Your task to perform on an android device: Open notification settings Image 0: 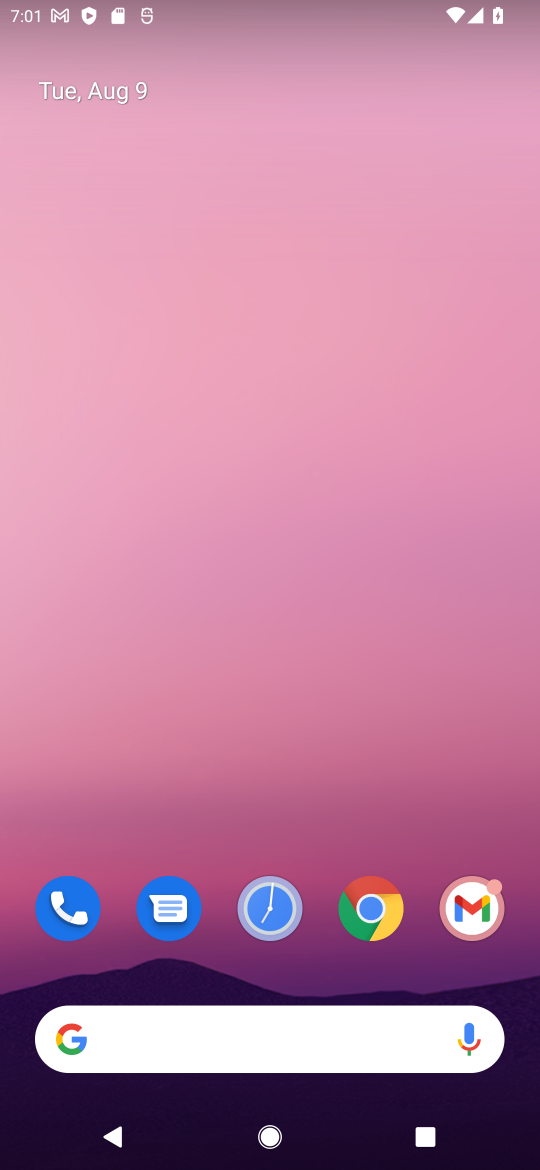
Step 0: drag from (317, 997) to (284, 160)
Your task to perform on an android device: Open notification settings Image 1: 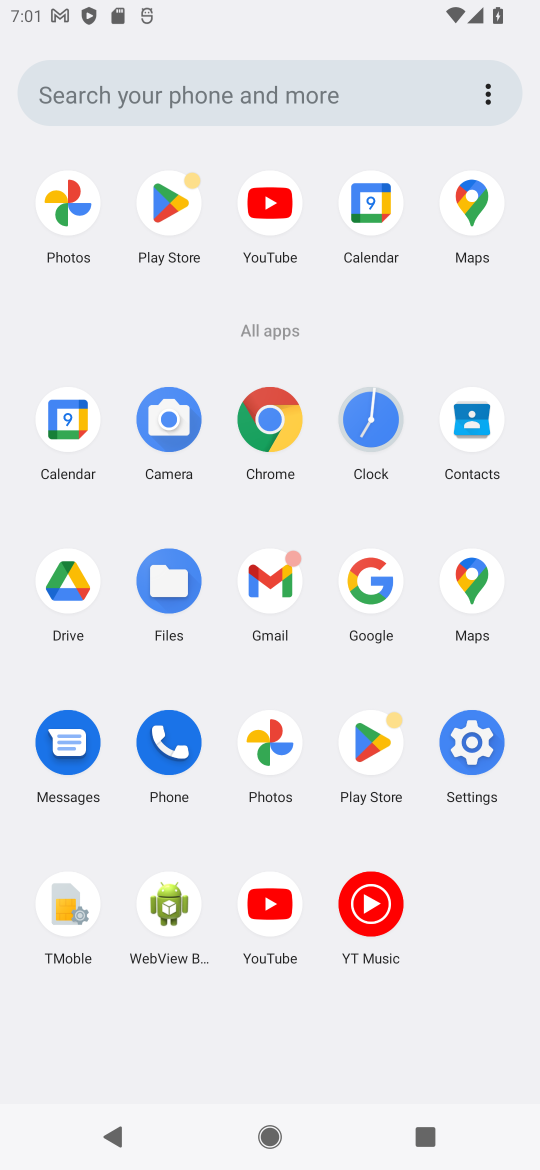
Step 1: click (473, 751)
Your task to perform on an android device: Open notification settings Image 2: 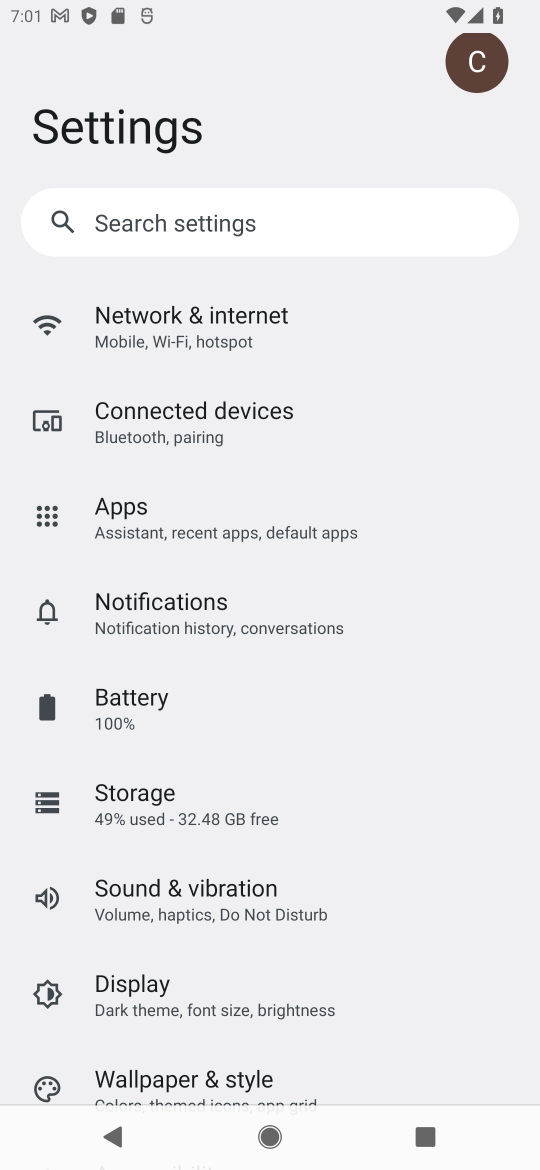
Step 2: click (157, 596)
Your task to perform on an android device: Open notification settings Image 3: 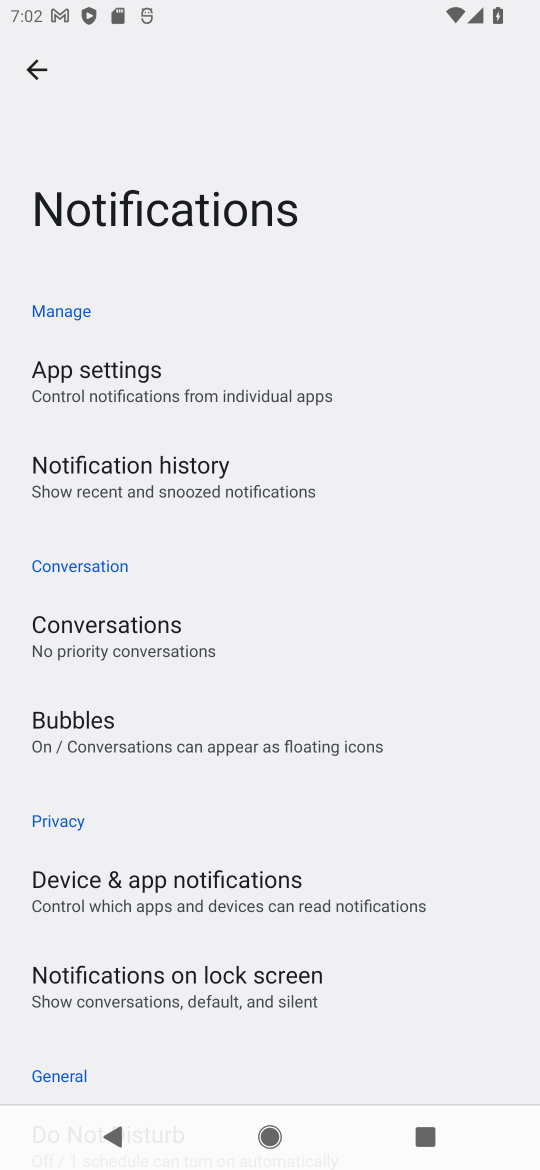
Step 3: task complete